Your task to perform on an android device: show emergency info Image 0: 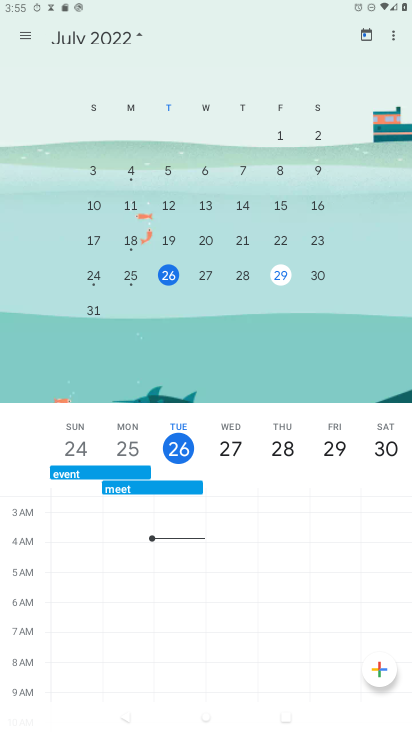
Step 0: press home button
Your task to perform on an android device: show emergency info Image 1: 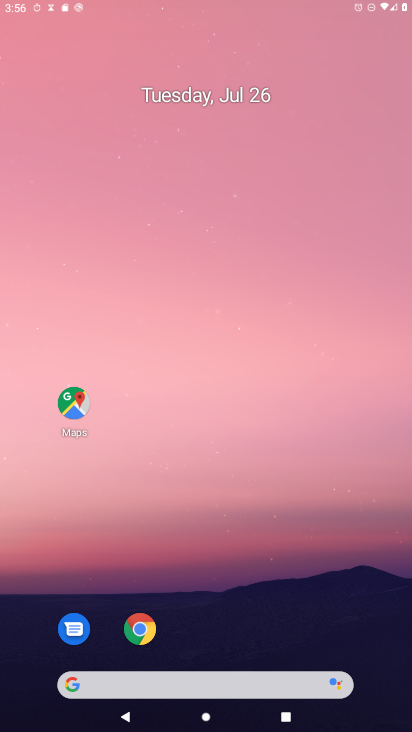
Step 1: drag from (243, 693) to (270, 26)
Your task to perform on an android device: show emergency info Image 2: 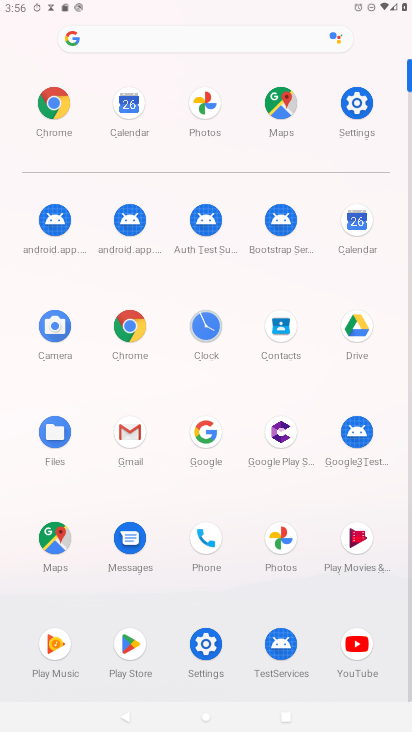
Step 2: click (351, 101)
Your task to perform on an android device: show emergency info Image 3: 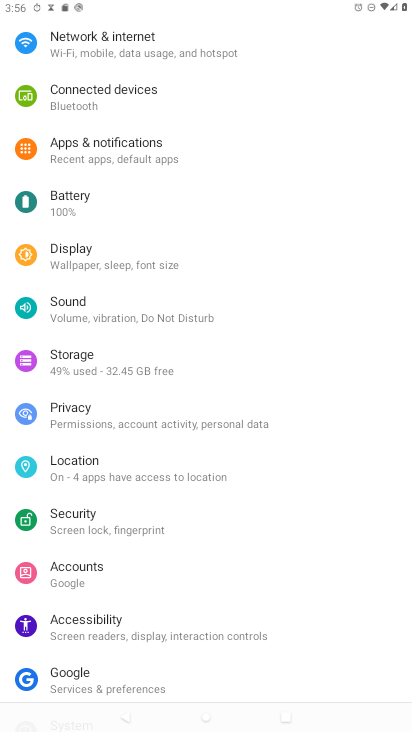
Step 3: drag from (210, 655) to (229, 273)
Your task to perform on an android device: show emergency info Image 4: 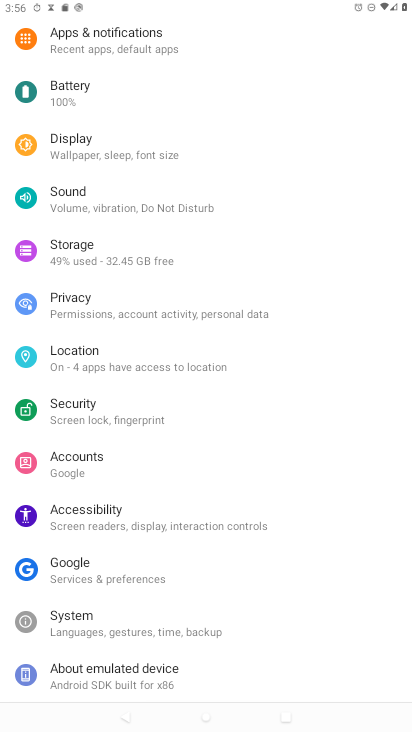
Step 4: click (190, 663)
Your task to perform on an android device: show emergency info Image 5: 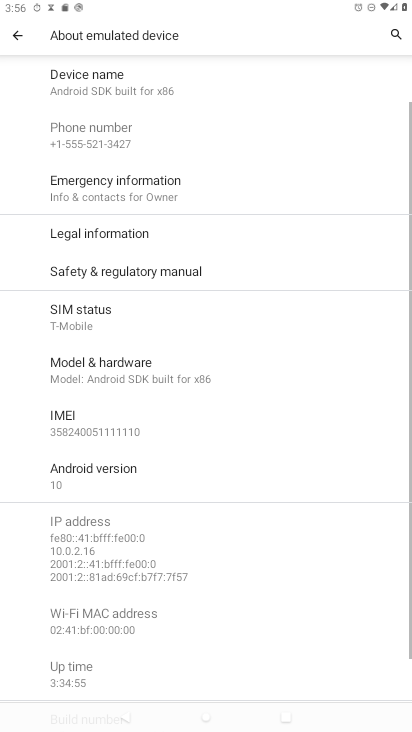
Step 5: click (154, 194)
Your task to perform on an android device: show emergency info Image 6: 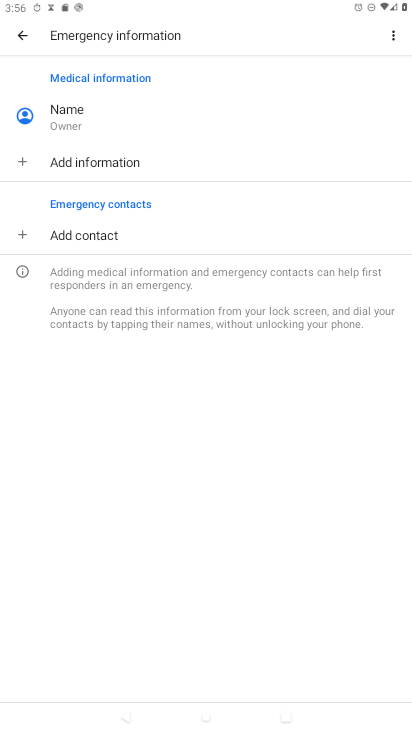
Step 6: task complete